Your task to perform on an android device: clear history in the chrome app Image 0: 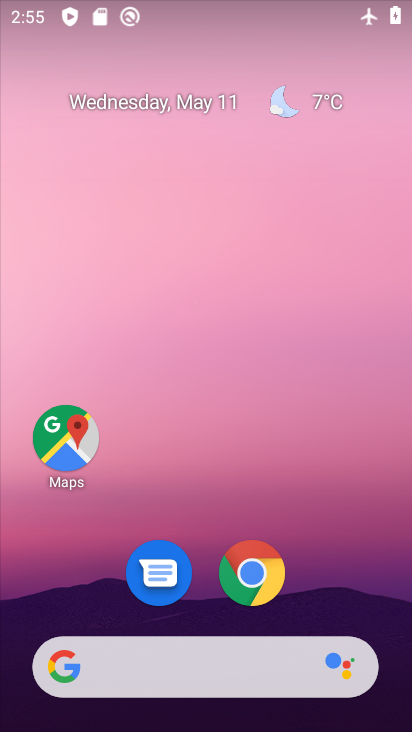
Step 0: click (270, 598)
Your task to perform on an android device: clear history in the chrome app Image 1: 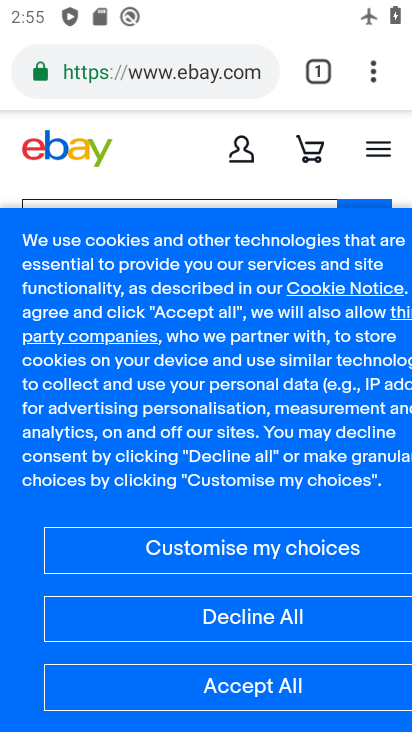
Step 1: drag from (370, 85) to (142, 414)
Your task to perform on an android device: clear history in the chrome app Image 2: 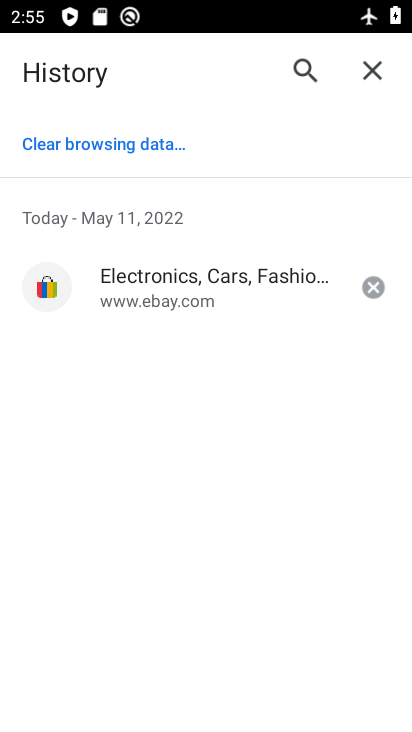
Step 2: click (109, 136)
Your task to perform on an android device: clear history in the chrome app Image 3: 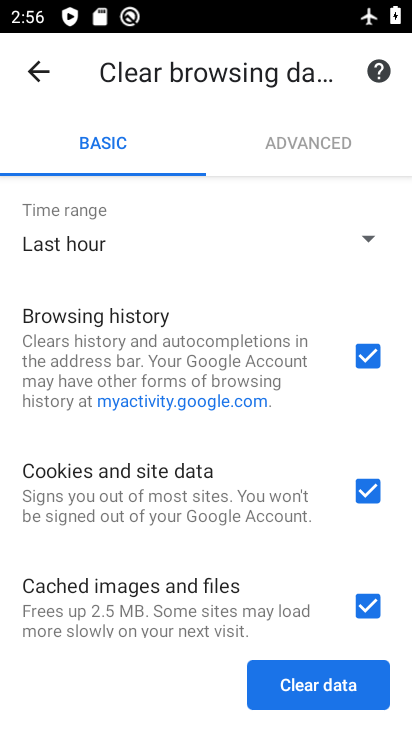
Step 3: click (323, 688)
Your task to perform on an android device: clear history in the chrome app Image 4: 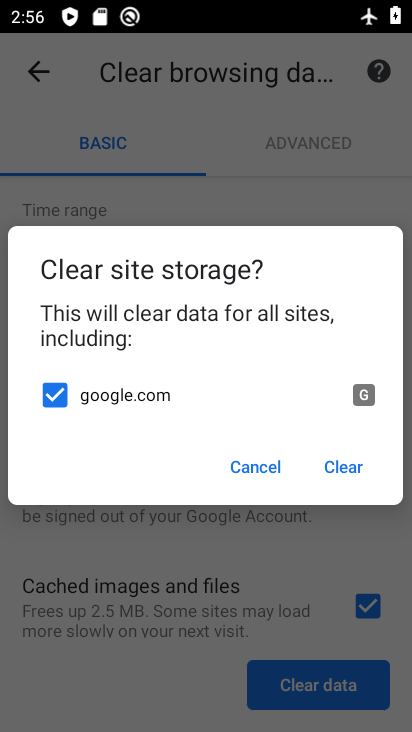
Step 4: click (336, 454)
Your task to perform on an android device: clear history in the chrome app Image 5: 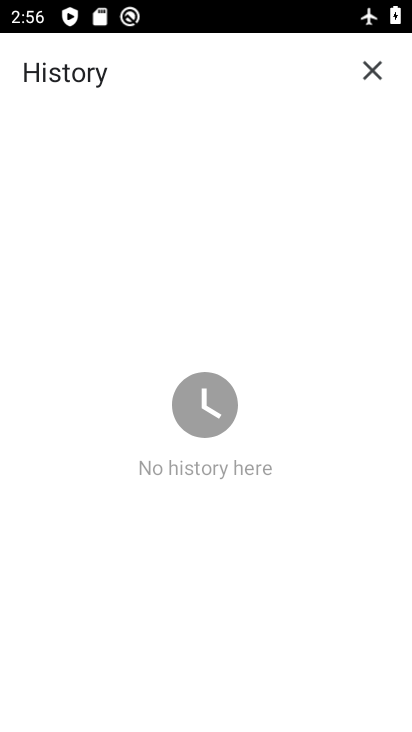
Step 5: task complete